Your task to perform on an android device: turn off smart reply in the gmail app Image 0: 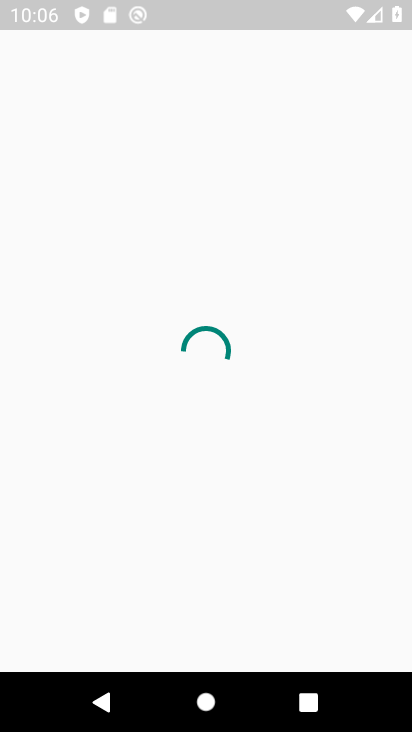
Step 0: press home button
Your task to perform on an android device: turn off smart reply in the gmail app Image 1: 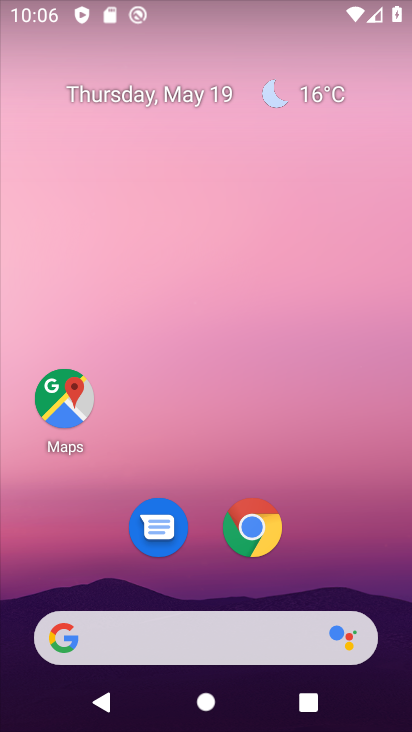
Step 1: drag from (228, 609) to (277, 193)
Your task to perform on an android device: turn off smart reply in the gmail app Image 2: 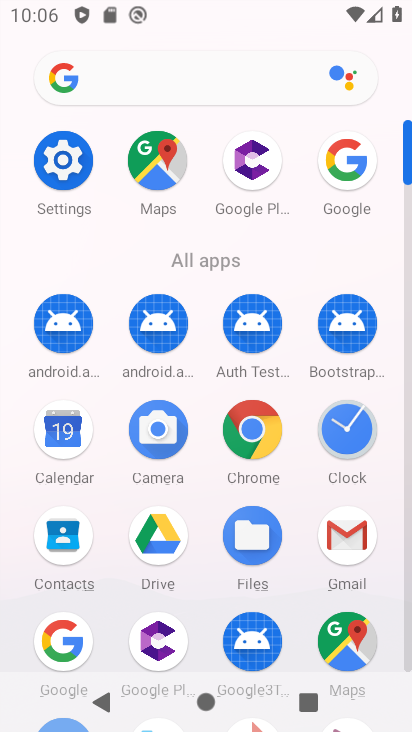
Step 2: click (347, 546)
Your task to perform on an android device: turn off smart reply in the gmail app Image 3: 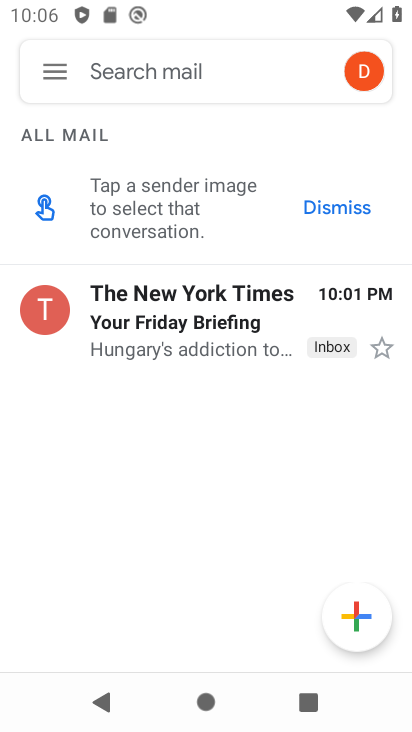
Step 3: click (54, 70)
Your task to perform on an android device: turn off smart reply in the gmail app Image 4: 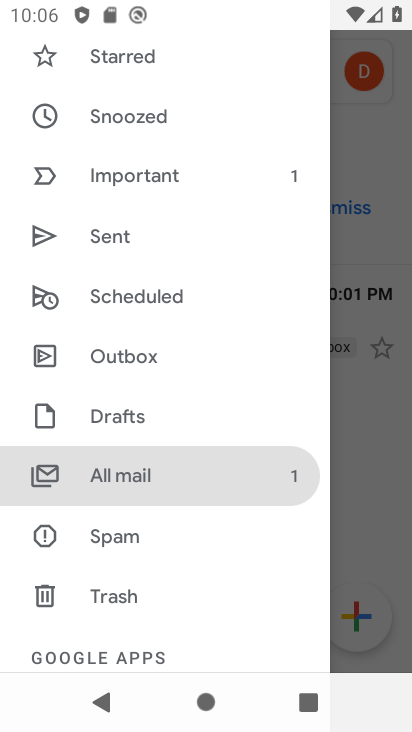
Step 4: drag from (129, 606) to (176, 203)
Your task to perform on an android device: turn off smart reply in the gmail app Image 5: 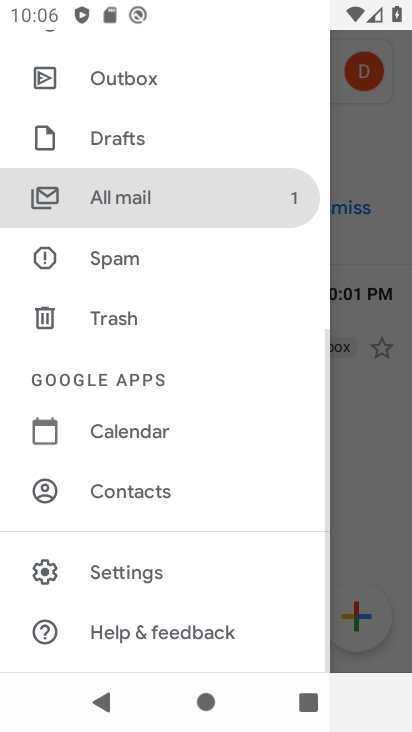
Step 5: click (116, 570)
Your task to perform on an android device: turn off smart reply in the gmail app Image 6: 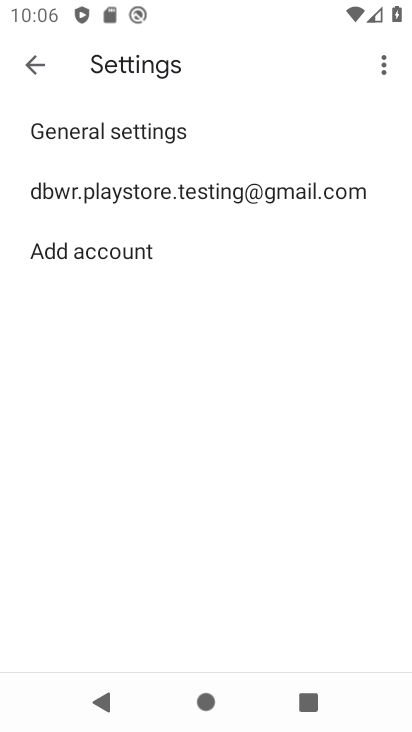
Step 6: click (133, 188)
Your task to perform on an android device: turn off smart reply in the gmail app Image 7: 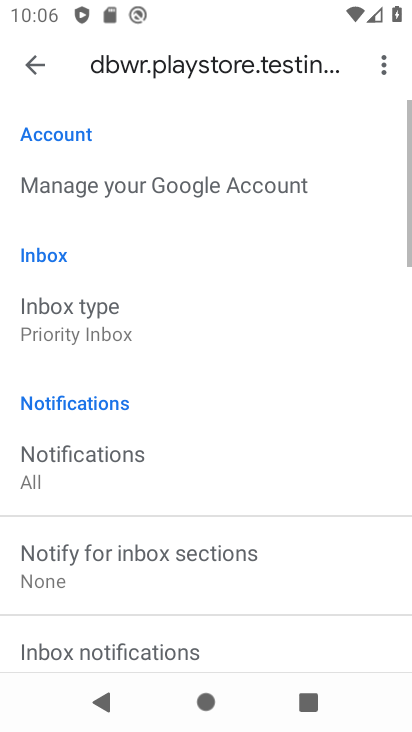
Step 7: drag from (168, 614) to (175, 264)
Your task to perform on an android device: turn off smart reply in the gmail app Image 8: 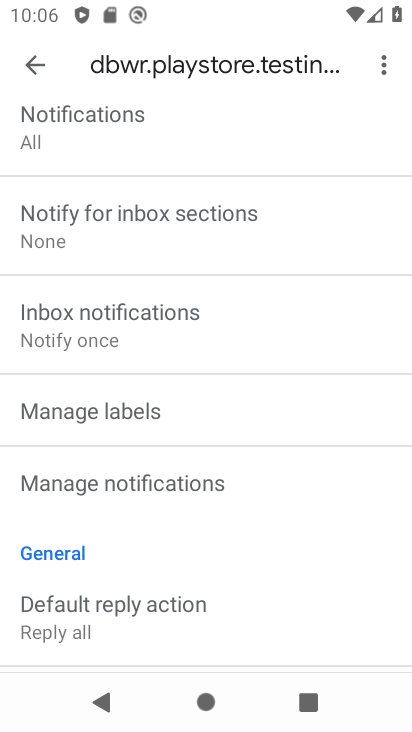
Step 8: drag from (129, 635) to (134, 288)
Your task to perform on an android device: turn off smart reply in the gmail app Image 9: 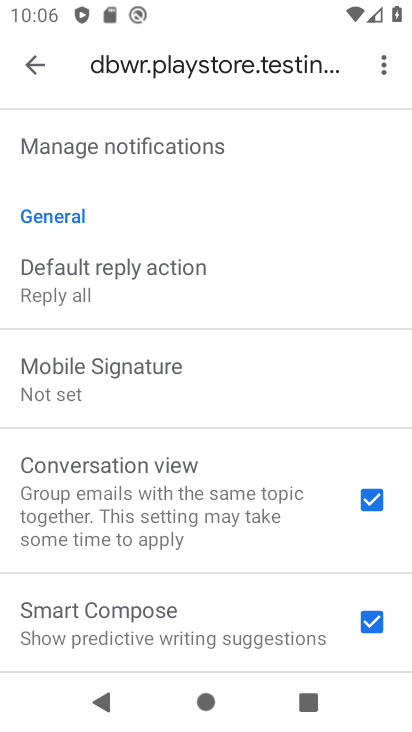
Step 9: drag from (125, 621) to (154, 324)
Your task to perform on an android device: turn off smart reply in the gmail app Image 10: 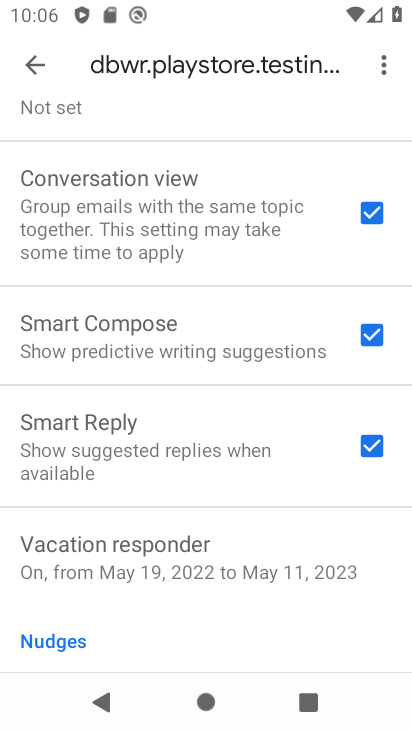
Step 10: click (377, 448)
Your task to perform on an android device: turn off smart reply in the gmail app Image 11: 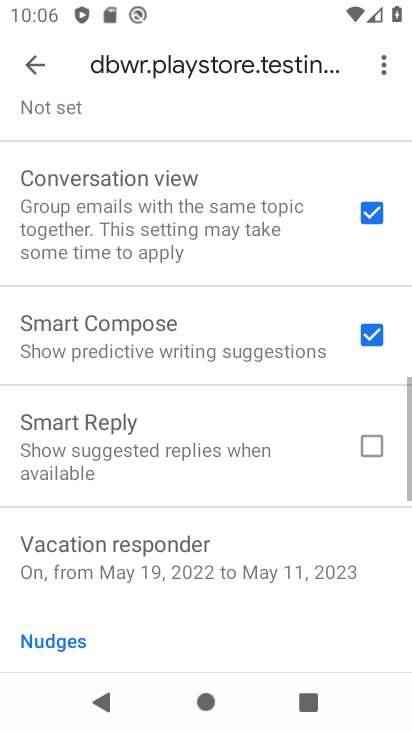
Step 11: task complete